Your task to perform on an android device: star an email in the gmail app Image 0: 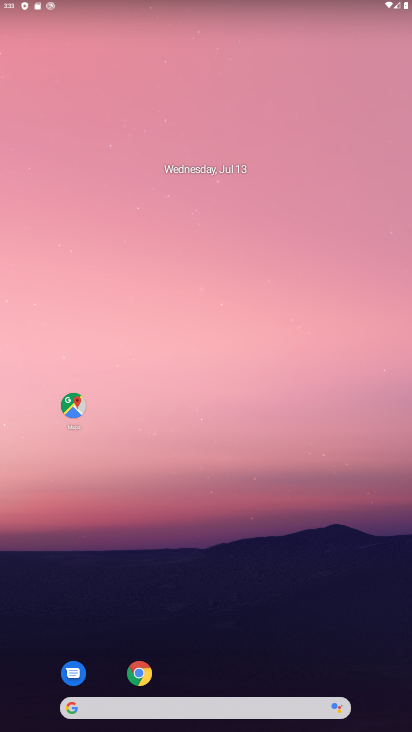
Step 0: click (134, 288)
Your task to perform on an android device: star an email in the gmail app Image 1: 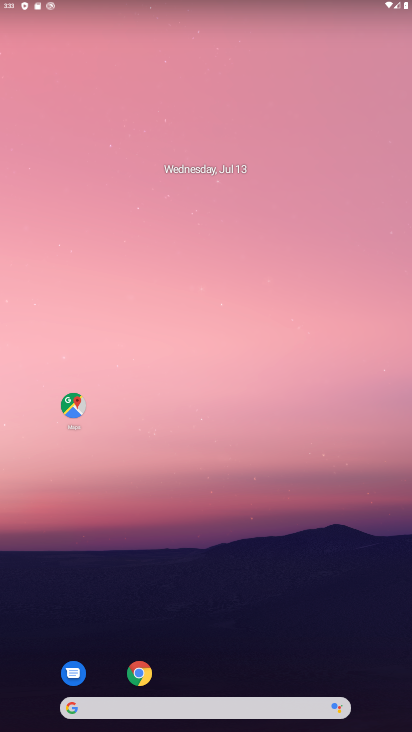
Step 1: drag from (210, 687) to (231, 152)
Your task to perform on an android device: star an email in the gmail app Image 2: 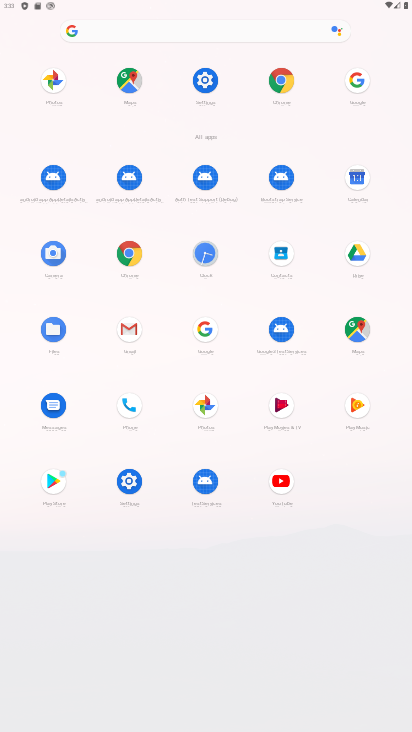
Step 2: click (130, 334)
Your task to perform on an android device: star an email in the gmail app Image 3: 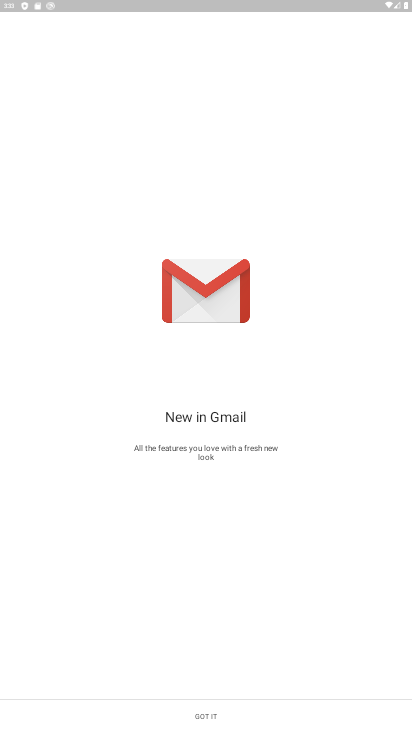
Step 3: click (199, 715)
Your task to perform on an android device: star an email in the gmail app Image 4: 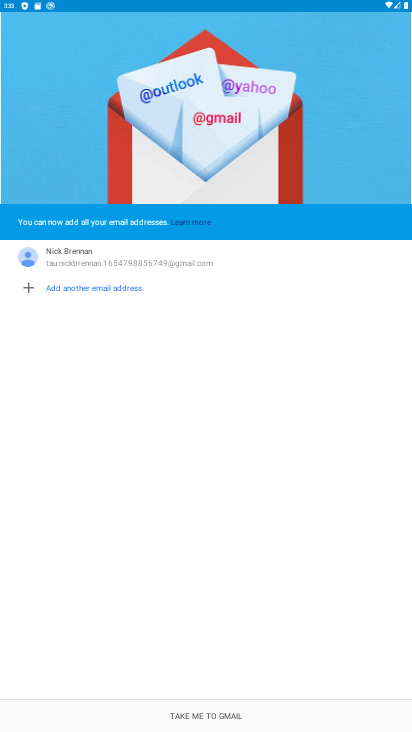
Step 4: click (199, 715)
Your task to perform on an android device: star an email in the gmail app Image 5: 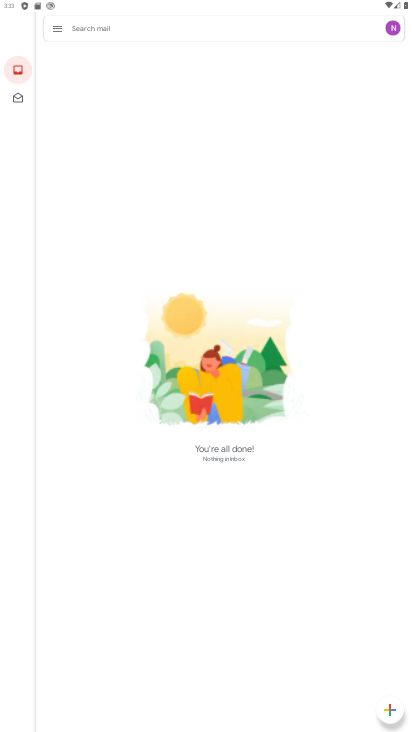
Step 5: task complete